Your task to perform on an android device: Open wifi settings Image 0: 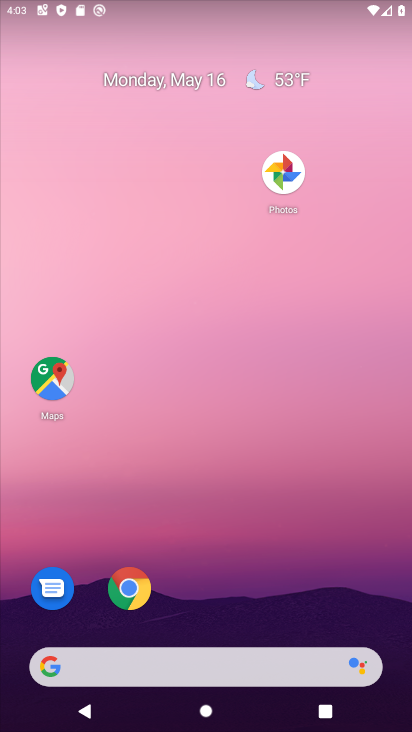
Step 0: task complete